Your task to perform on an android device: turn off notifications in google photos Image 0: 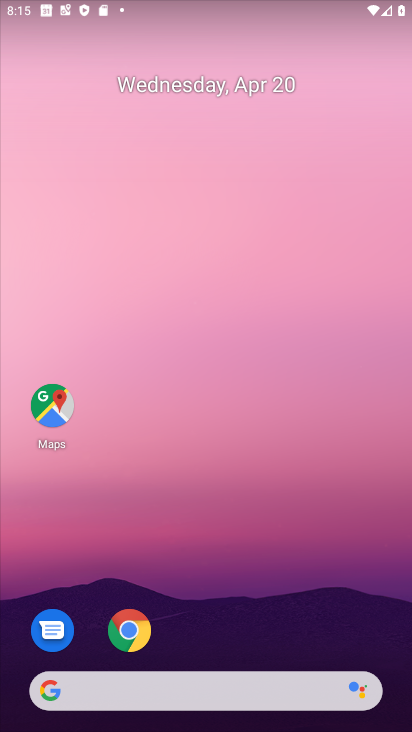
Step 0: drag from (249, 512) to (87, 2)
Your task to perform on an android device: turn off notifications in google photos Image 1: 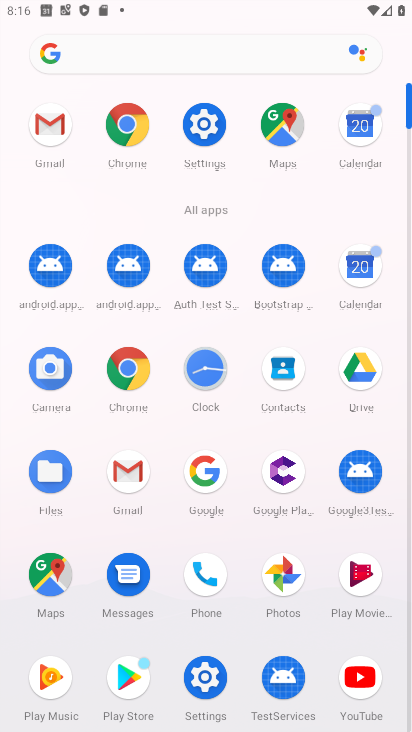
Step 1: click (283, 567)
Your task to perform on an android device: turn off notifications in google photos Image 2: 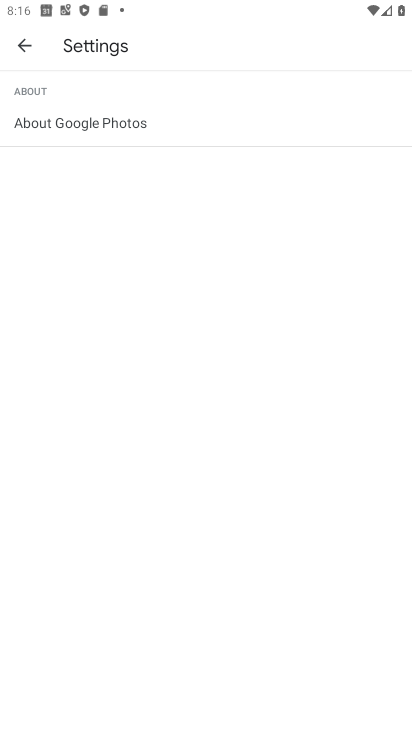
Step 2: click (25, 45)
Your task to perform on an android device: turn off notifications in google photos Image 3: 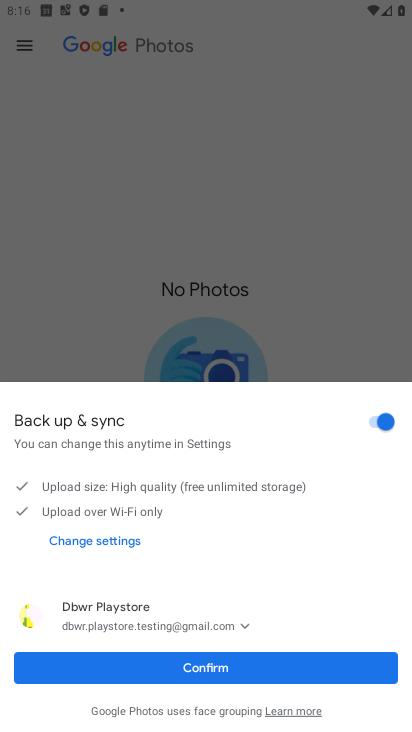
Step 3: click (217, 665)
Your task to perform on an android device: turn off notifications in google photos Image 4: 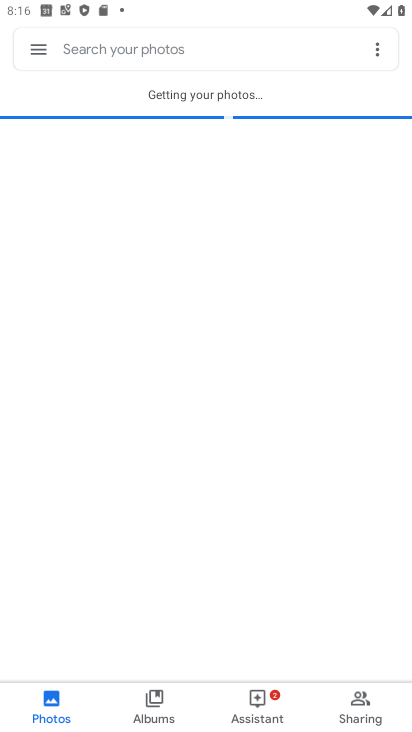
Step 4: click (39, 54)
Your task to perform on an android device: turn off notifications in google photos Image 5: 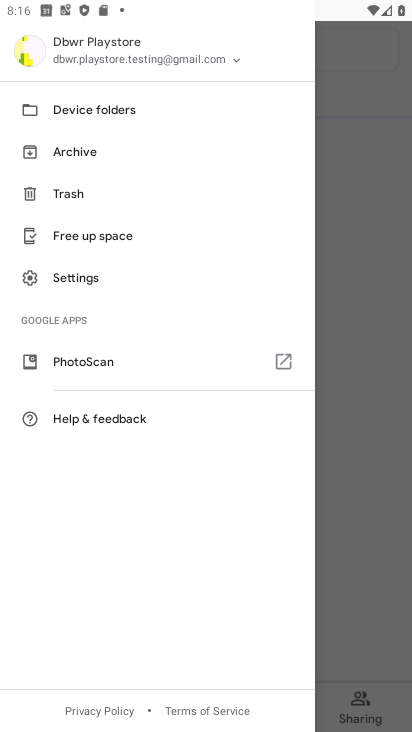
Step 5: click (95, 277)
Your task to perform on an android device: turn off notifications in google photos Image 6: 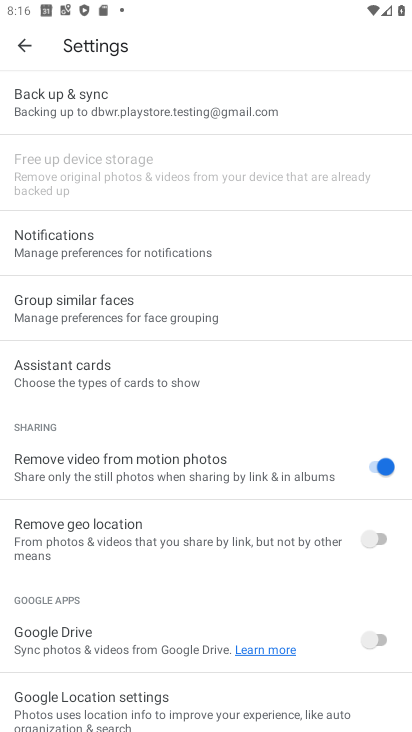
Step 6: click (122, 250)
Your task to perform on an android device: turn off notifications in google photos Image 7: 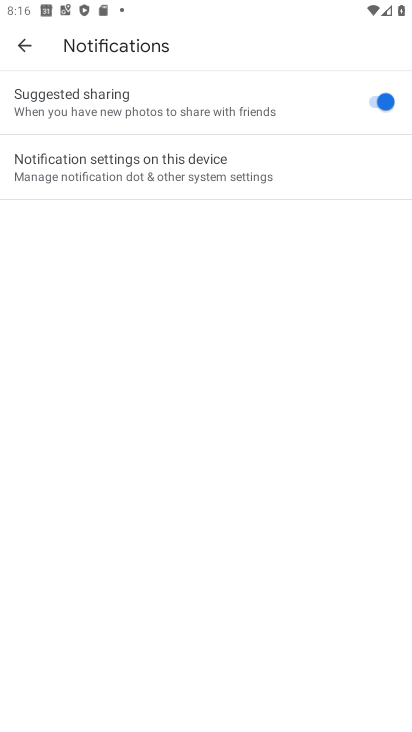
Step 7: click (177, 173)
Your task to perform on an android device: turn off notifications in google photos Image 8: 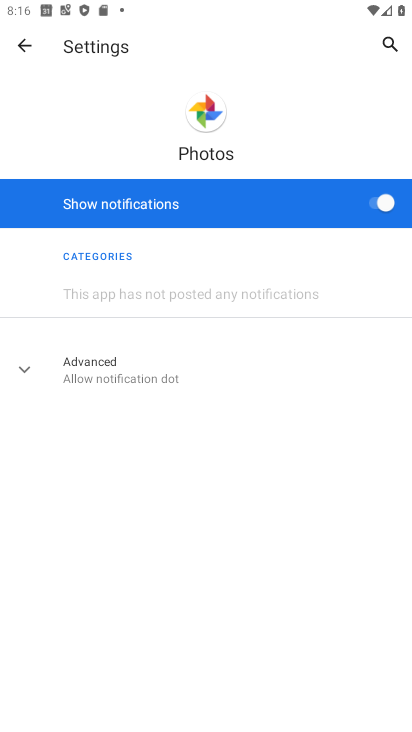
Step 8: click (372, 200)
Your task to perform on an android device: turn off notifications in google photos Image 9: 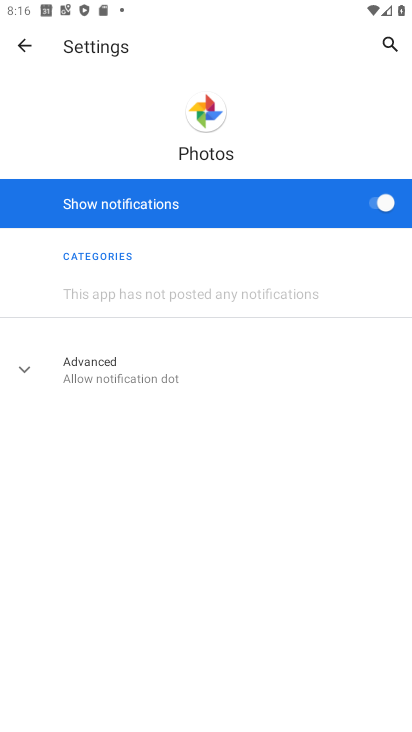
Step 9: click (372, 200)
Your task to perform on an android device: turn off notifications in google photos Image 10: 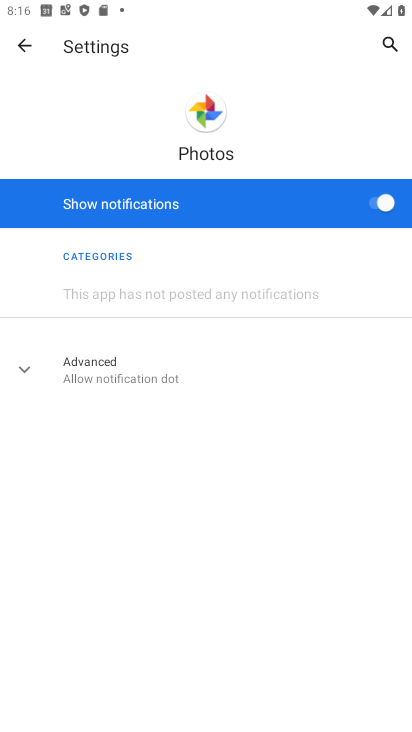
Step 10: click (378, 200)
Your task to perform on an android device: turn off notifications in google photos Image 11: 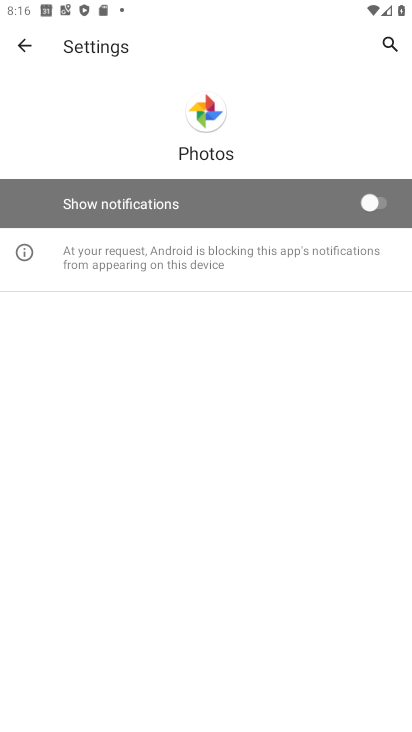
Step 11: task complete